Your task to perform on an android device: Go to location settings Image 0: 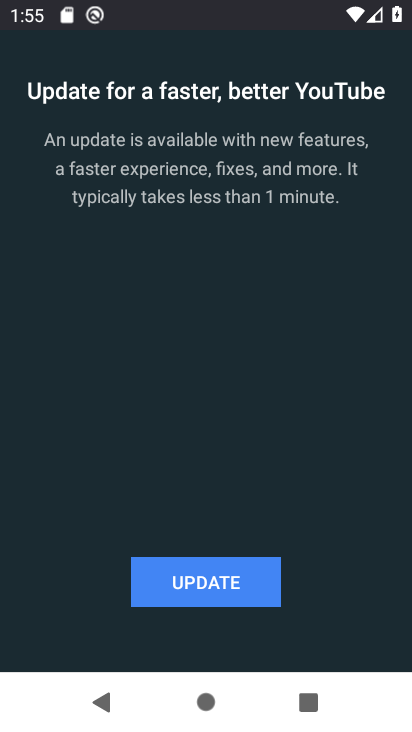
Step 0: press back button
Your task to perform on an android device: Go to location settings Image 1: 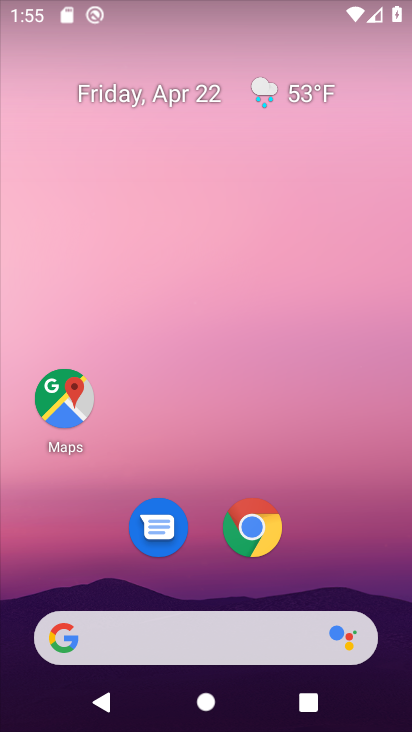
Step 1: drag from (284, 419) to (267, 7)
Your task to perform on an android device: Go to location settings Image 2: 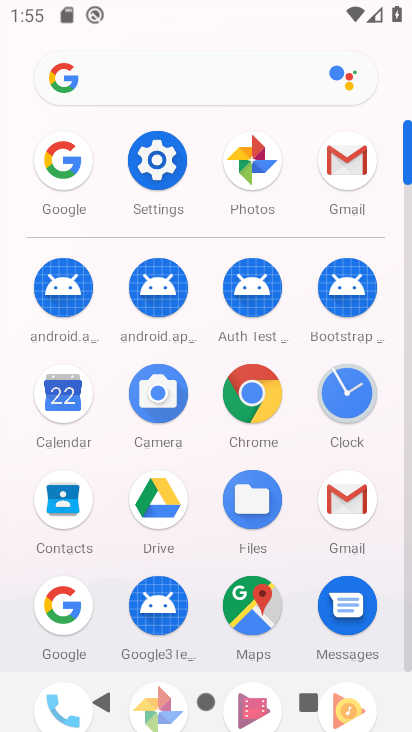
Step 2: click (172, 171)
Your task to perform on an android device: Go to location settings Image 3: 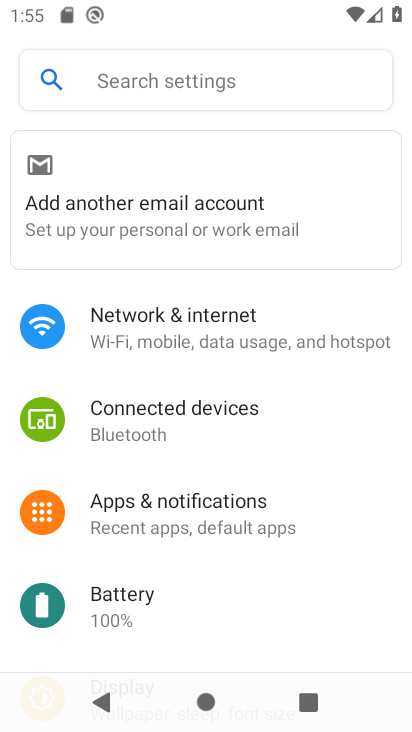
Step 3: drag from (207, 543) to (169, 75)
Your task to perform on an android device: Go to location settings Image 4: 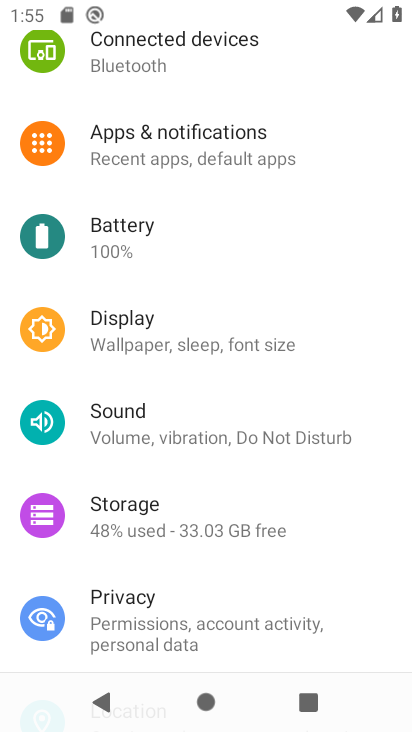
Step 4: drag from (159, 574) to (150, 245)
Your task to perform on an android device: Go to location settings Image 5: 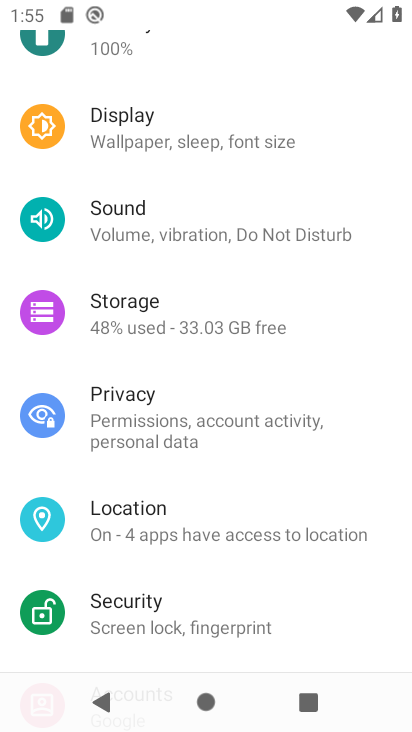
Step 5: click (143, 522)
Your task to perform on an android device: Go to location settings Image 6: 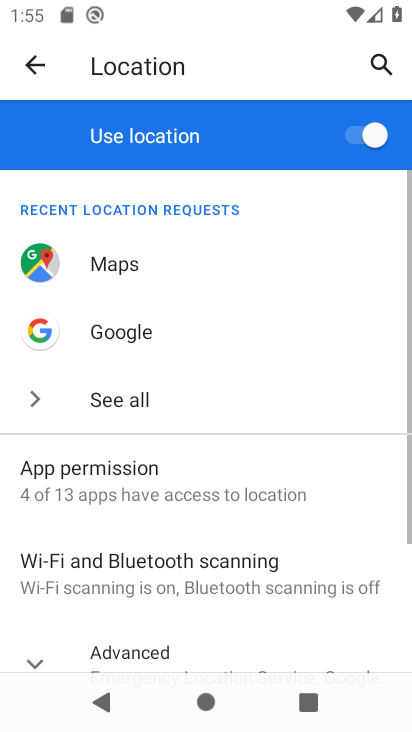
Step 6: task complete